Your task to perform on an android device: Open Google Chrome and click the shortcut for Amazon.com Image 0: 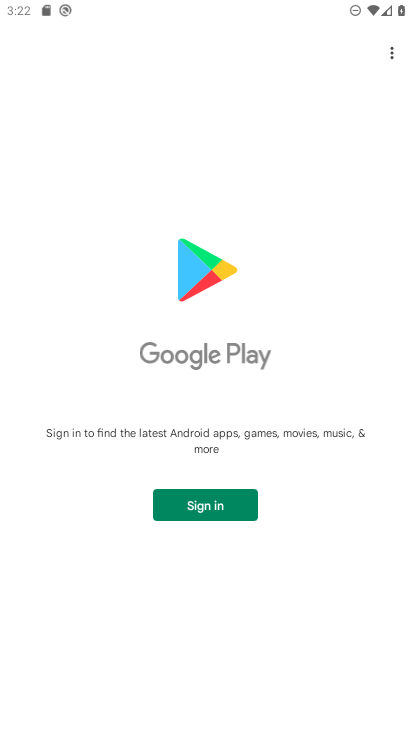
Step 0: press home button
Your task to perform on an android device: Open Google Chrome and click the shortcut for Amazon.com Image 1: 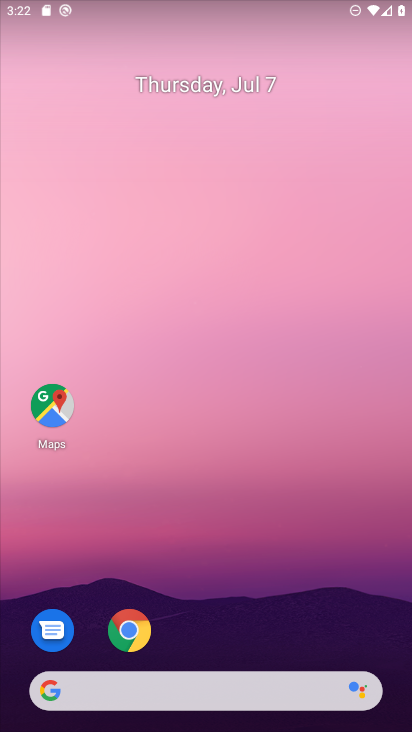
Step 1: drag from (316, 604) to (324, 163)
Your task to perform on an android device: Open Google Chrome and click the shortcut for Amazon.com Image 2: 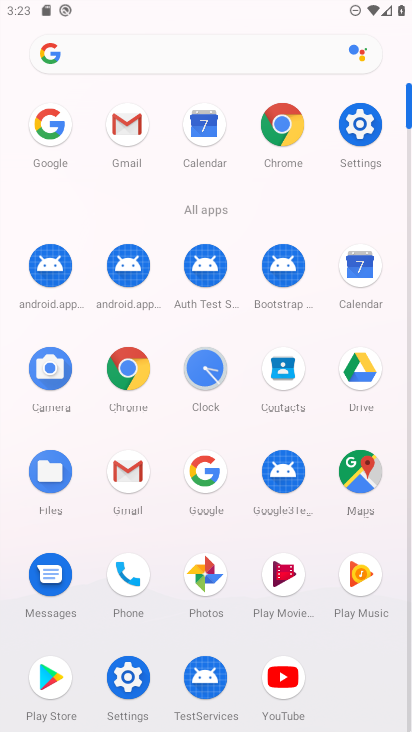
Step 2: click (136, 366)
Your task to perform on an android device: Open Google Chrome and click the shortcut for Amazon.com Image 3: 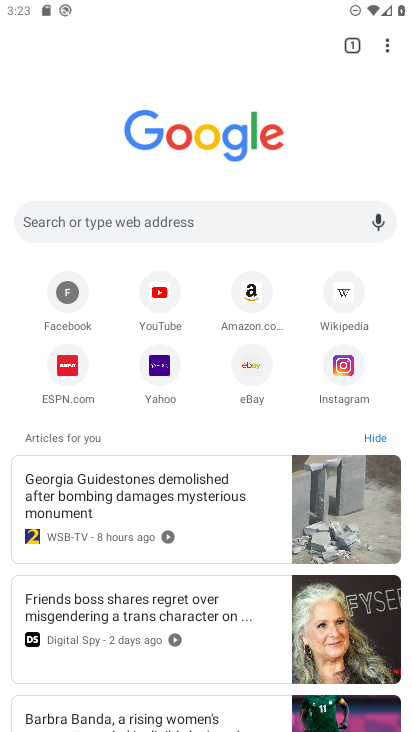
Step 3: click (256, 301)
Your task to perform on an android device: Open Google Chrome and click the shortcut for Amazon.com Image 4: 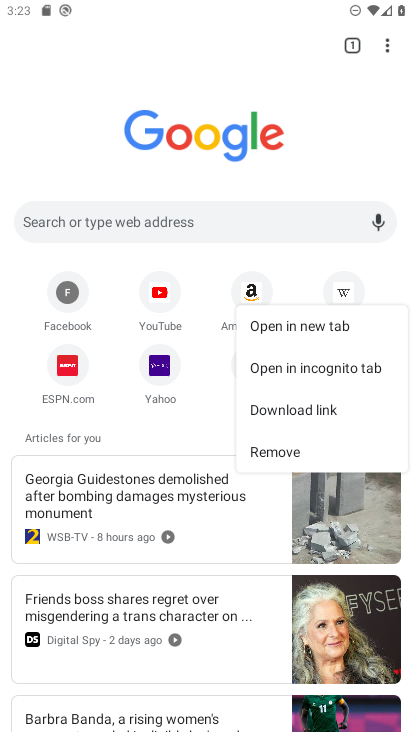
Step 4: click (252, 290)
Your task to perform on an android device: Open Google Chrome and click the shortcut for Amazon.com Image 5: 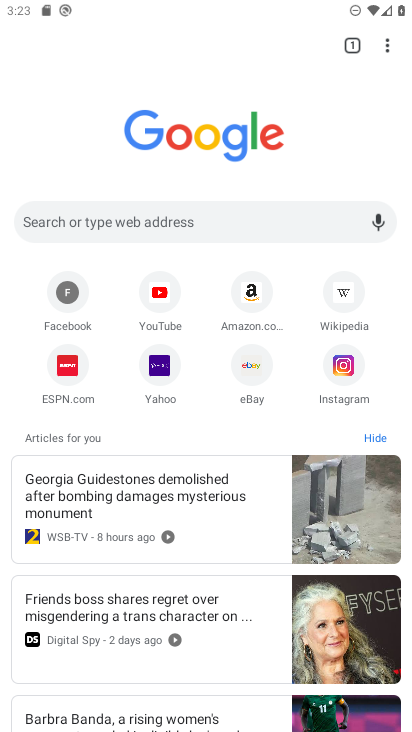
Step 5: click (258, 300)
Your task to perform on an android device: Open Google Chrome and click the shortcut for Amazon.com Image 6: 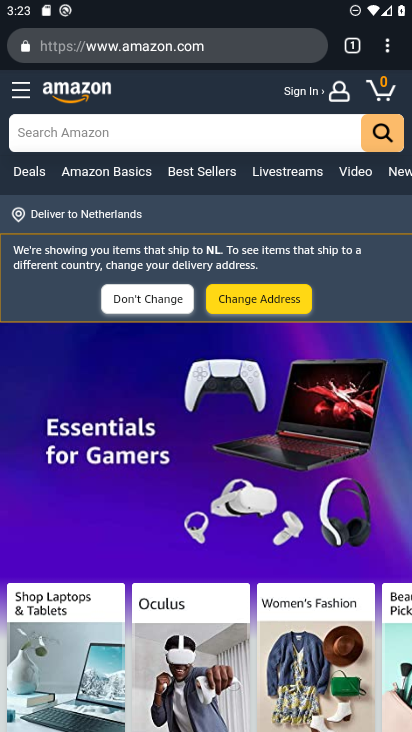
Step 6: task complete